Your task to perform on an android device: change alarm snooze length Image 0: 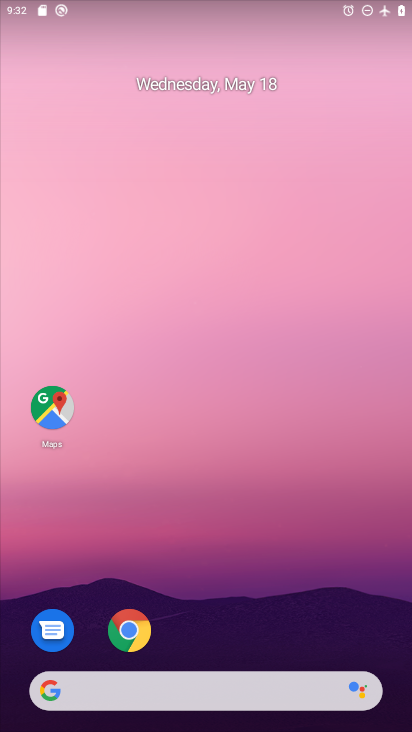
Step 0: drag from (186, 678) to (222, 5)
Your task to perform on an android device: change alarm snooze length Image 1: 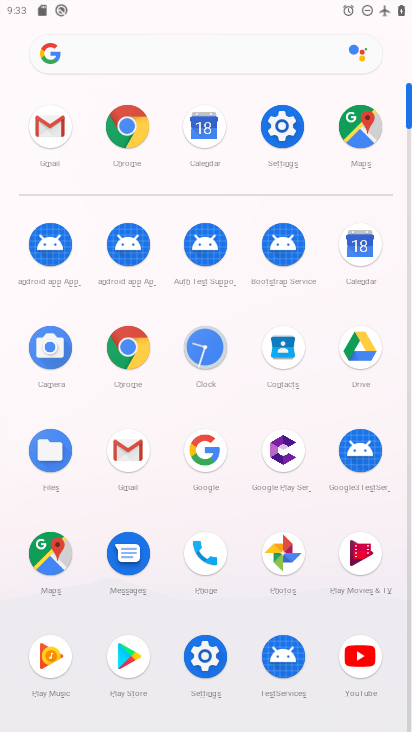
Step 1: click (195, 344)
Your task to perform on an android device: change alarm snooze length Image 2: 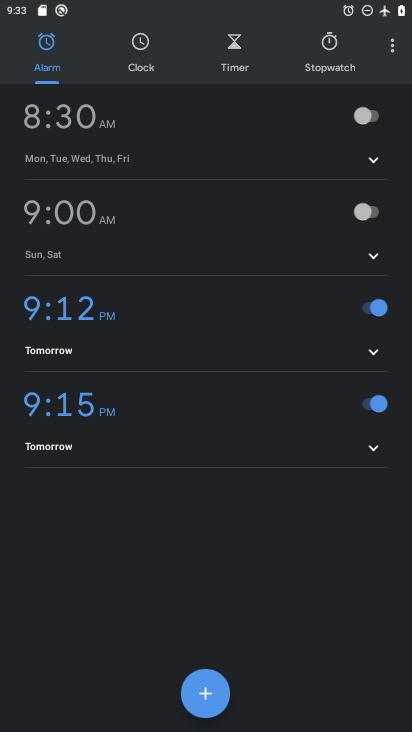
Step 2: click (392, 45)
Your task to perform on an android device: change alarm snooze length Image 3: 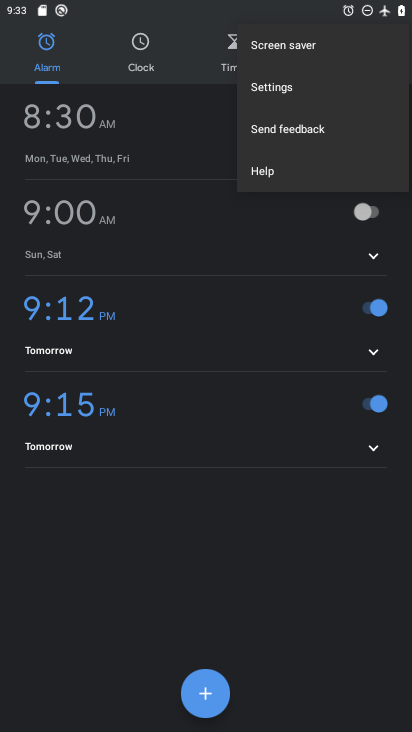
Step 3: click (270, 95)
Your task to perform on an android device: change alarm snooze length Image 4: 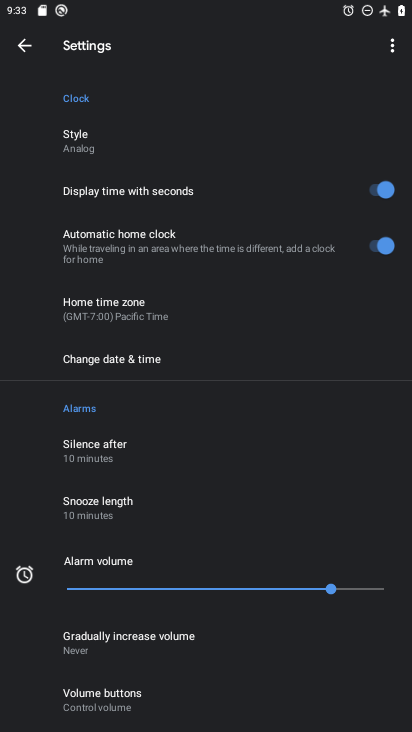
Step 4: click (119, 508)
Your task to perform on an android device: change alarm snooze length Image 5: 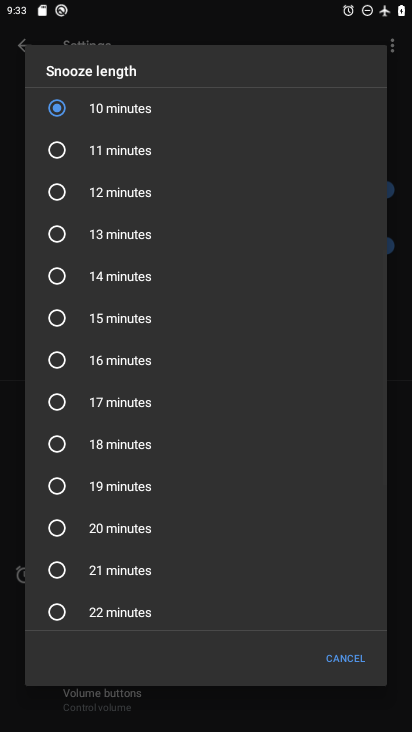
Step 5: click (112, 149)
Your task to perform on an android device: change alarm snooze length Image 6: 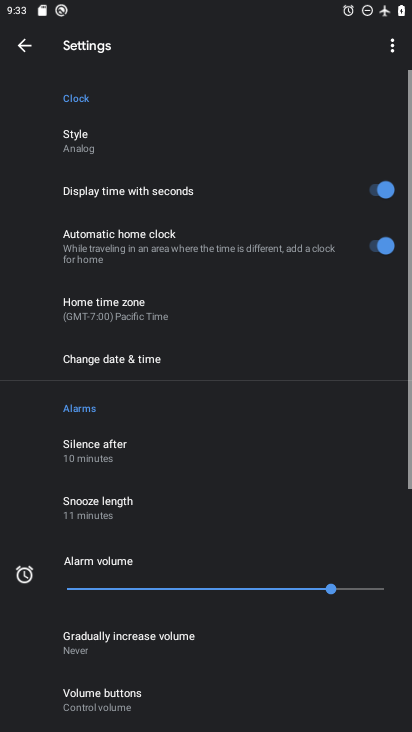
Step 6: task complete